Your task to perform on an android device: set an alarm Image 0: 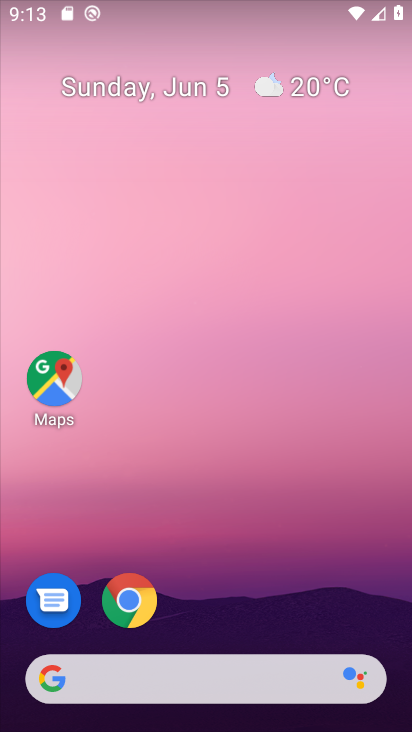
Step 0: drag from (268, 554) to (266, 32)
Your task to perform on an android device: set an alarm Image 1: 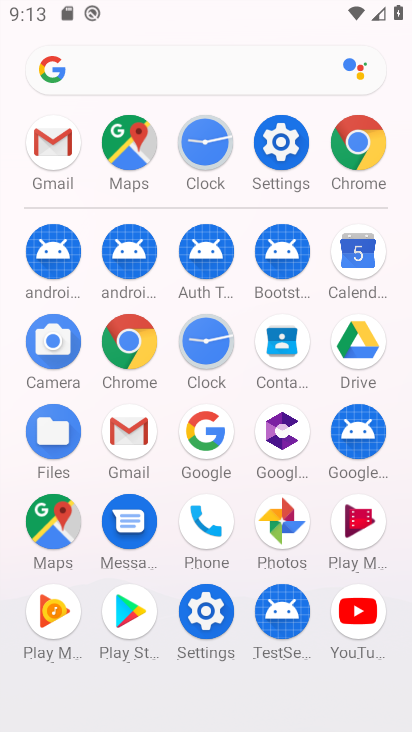
Step 1: click (207, 142)
Your task to perform on an android device: set an alarm Image 2: 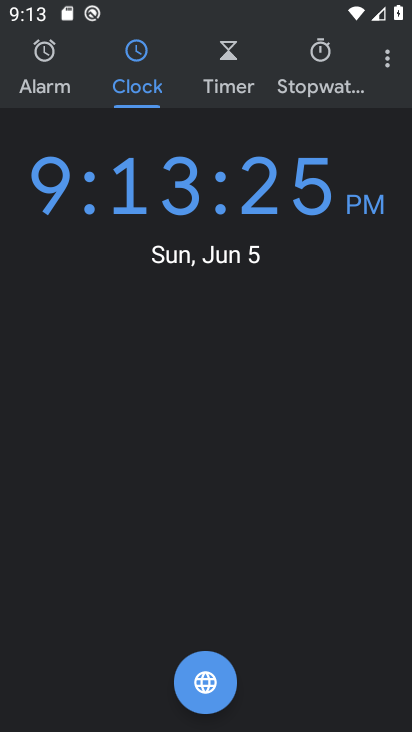
Step 2: click (63, 89)
Your task to perform on an android device: set an alarm Image 3: 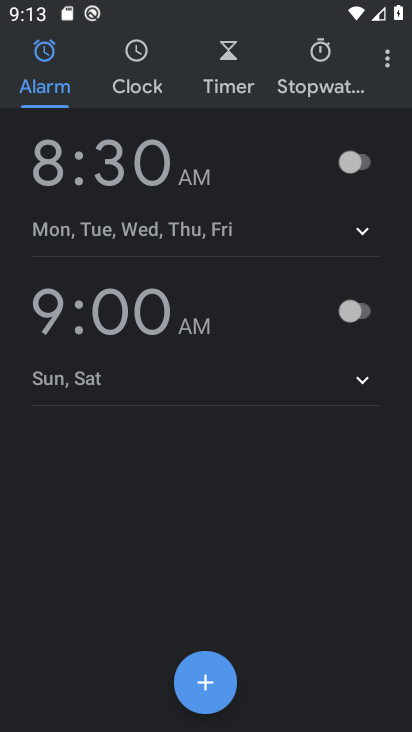
Step 3: click (208, 682)
Your task to perform on an android device: set an alarm Image 4: 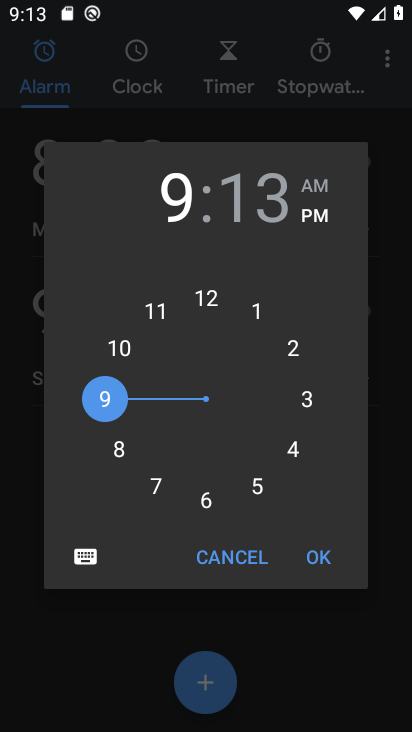
Step 4: click (265, 200)
Your task to perform on an android device: set an alarm Image 5: 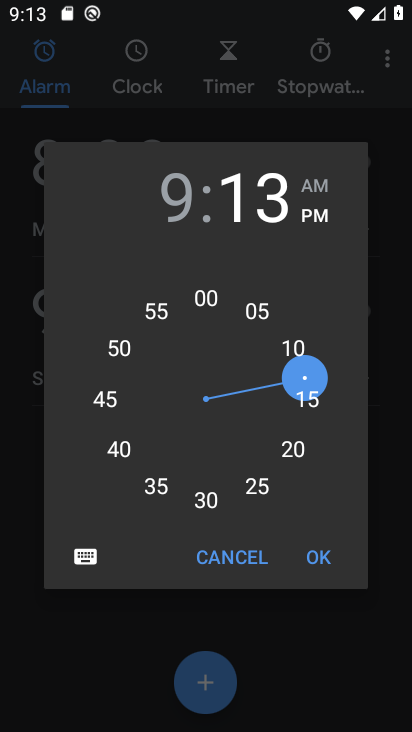
Step 5: click (209, 289)
Your task to perform on an android device: set an alarm Image 6: 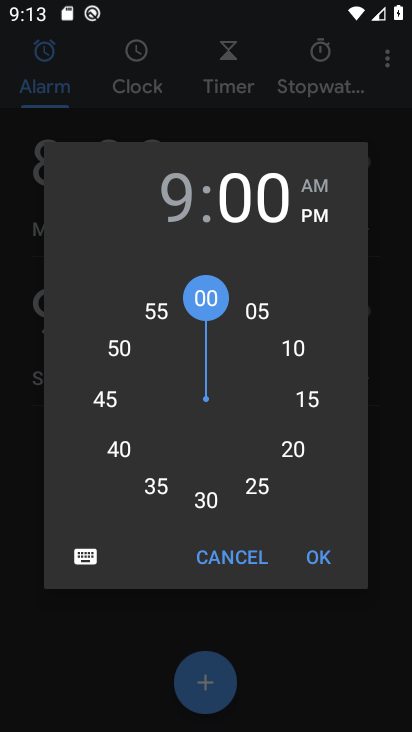
Step 6: click (305, 187)
Your task to perform on an android device: set an alarm Image 7: 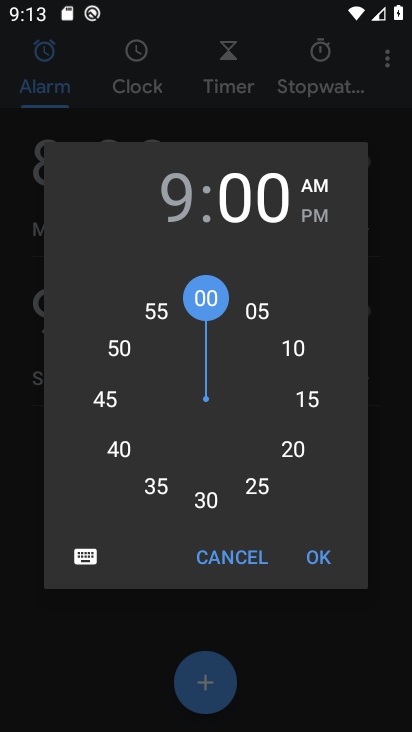
Step 7: click (311, 549)
Your task to perform on an android device: set an alarm Image 8: 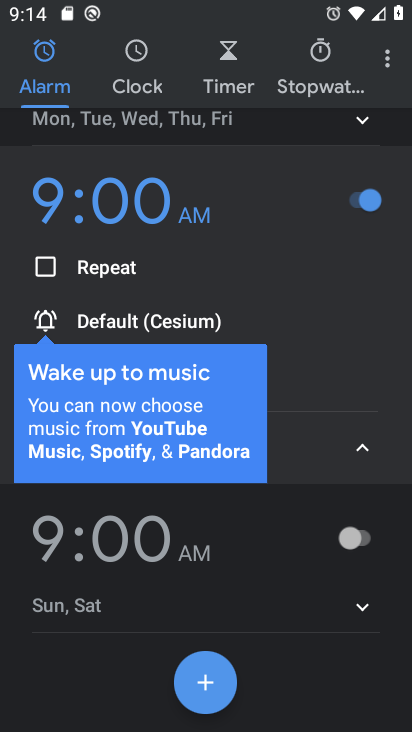
Step 8: task complete